Your task to perform on an android device: turn off location history Image 0: 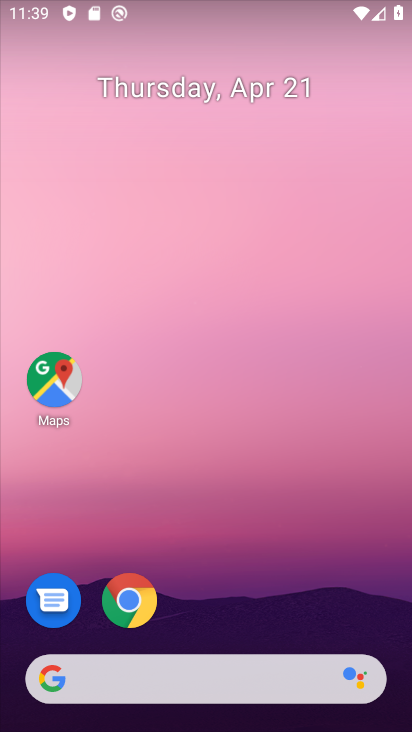
Step 0: drag from (216, 619) to (296, 78)
Your task to perform on an android device: turn off location history Image 1: 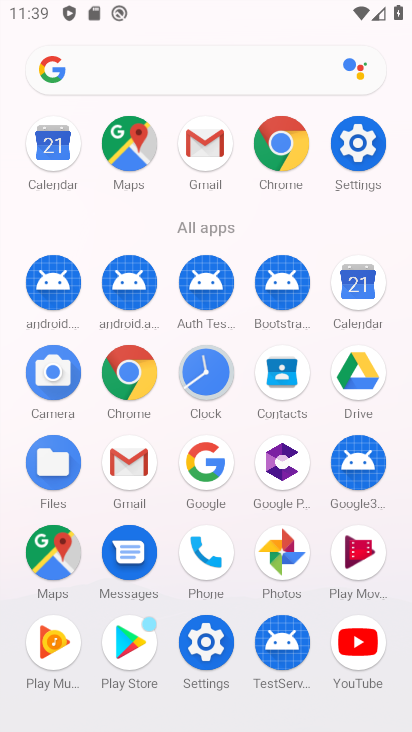
Step 1: click (197, 655)
Your task to perform on an android device: turn off location history Image 2: 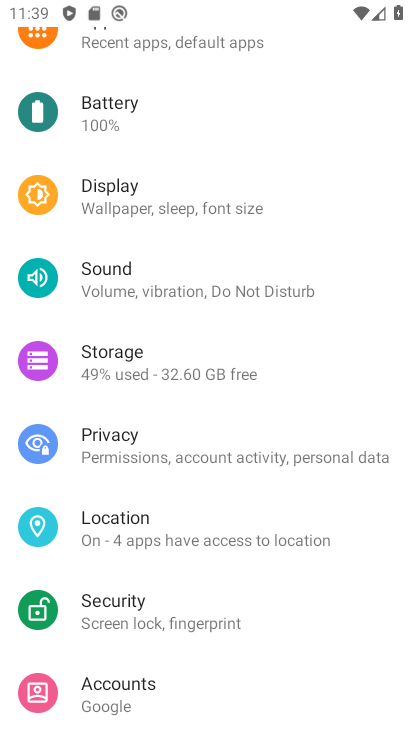
Step 2: click (155, 538)
Your task to perform on an android device: turn off location history Image 3: 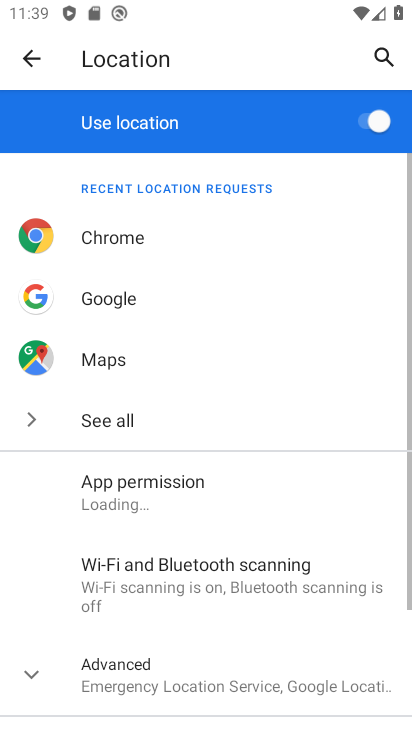
Step 3: drag from (150, 625) to (231, 314)
Your task to perform on an android device: turn off location history Image 4: 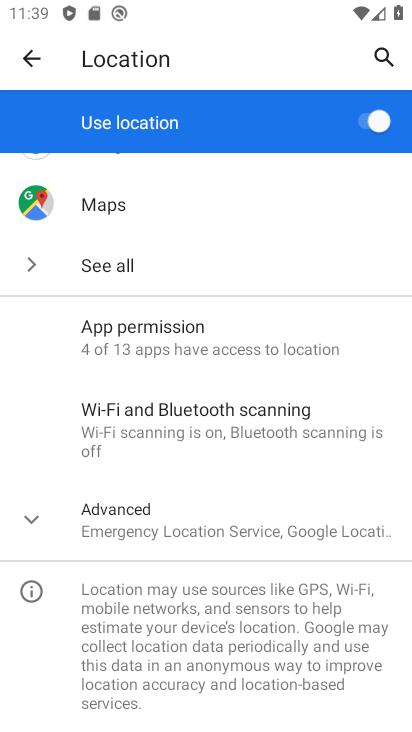
Step 4: click (119, 524)
Your task to perform on an android device: turn off location history Image 5: 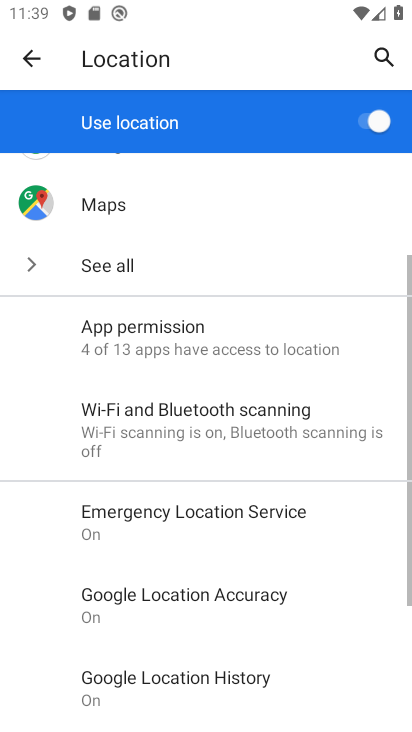
Step 5: drag from (186, 640) to (214, 456)
Your task to perform on an android device: turn off location history Image 6: 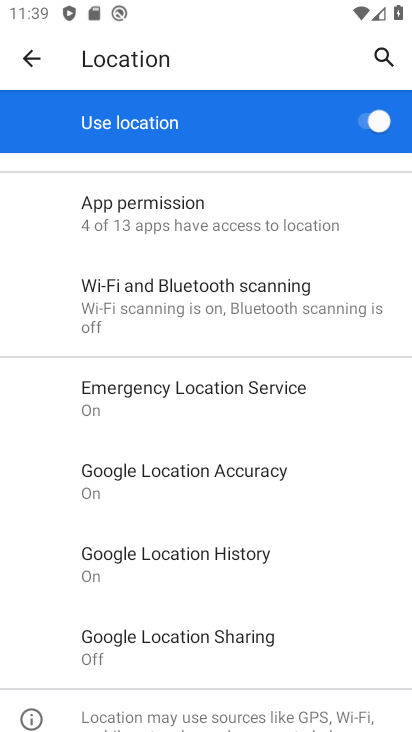
Step 6: click (168, 572)
Your task to perform on an android device: turn off location history Image 7: 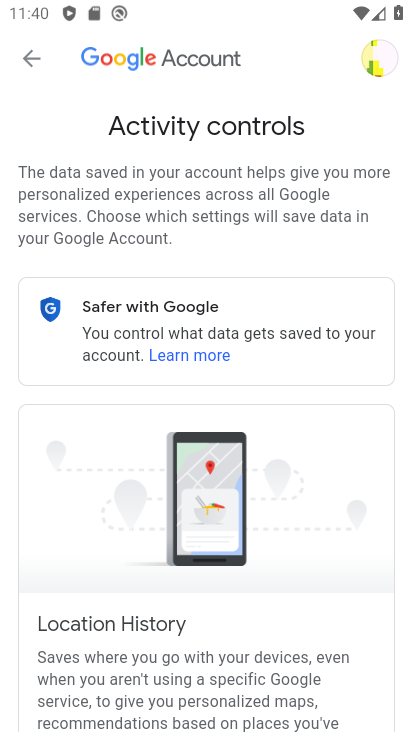
Step 7: drag from (178, 601) to (250, 371)
Your task to perform on an android device: turn off location history Image 8: 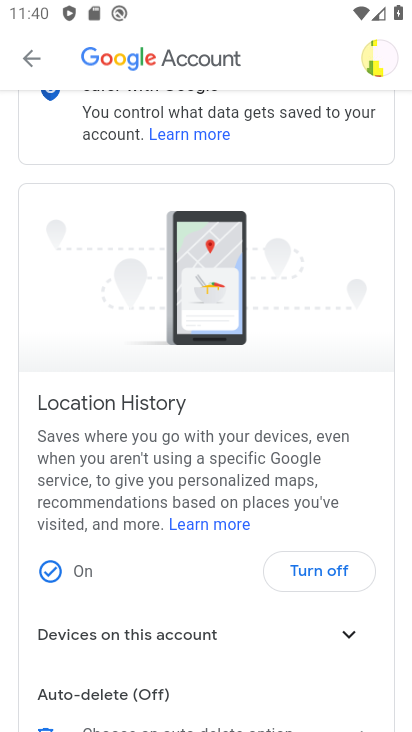
Step 8: click (308, 574)
Your task to perform on an android device: turn off location history Image 9: 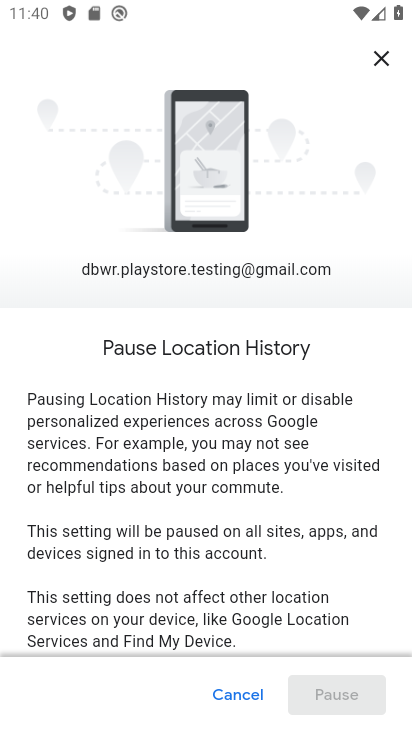
Step 9: drag from (269, 623) to (380, 177)
Your task to perform on an android device: turn off location history Image 10: 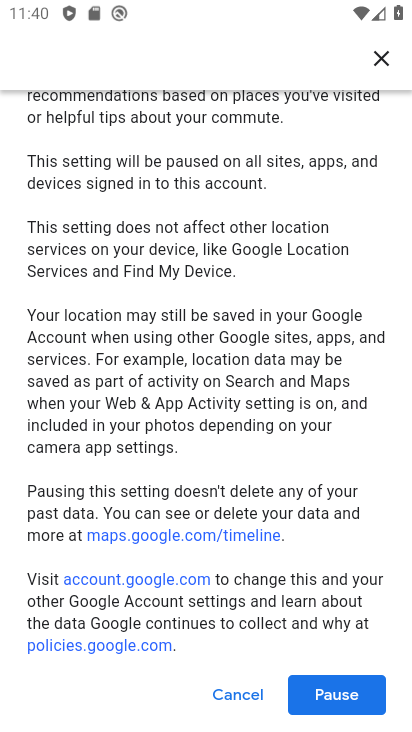
Step 10: drag from (258, 576) to (360, 188)
Your task to perform on an android device: turn off location history Image 11: 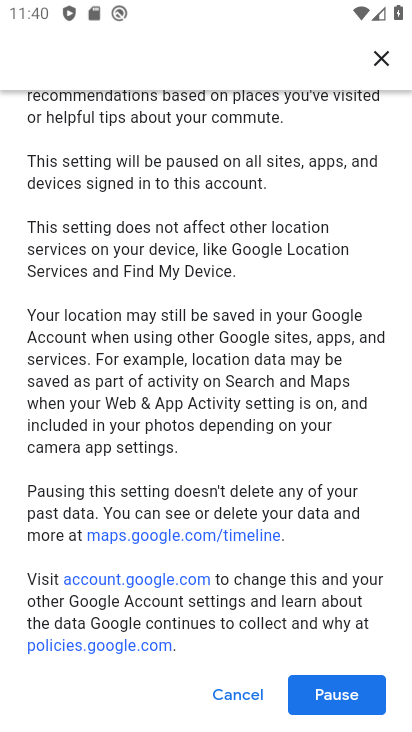
Step 11: click (316, 694)
Your task to perform on an android device: turn off location history Image 12: 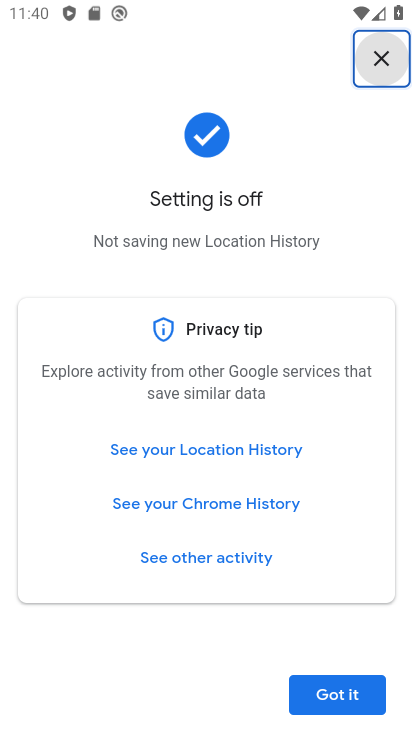
Step 12: click (340, 690)
Your task to perform on an android device: turn off location history Image 13: 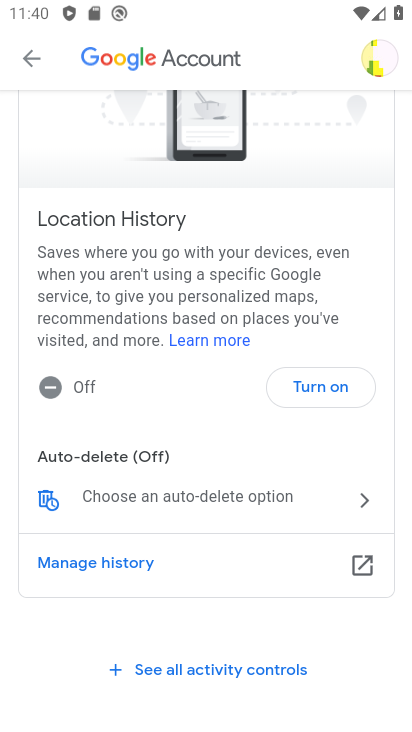
Step 13: task complete